Your task to perform on an android device: delete browsing data in the chrome app Image 0: 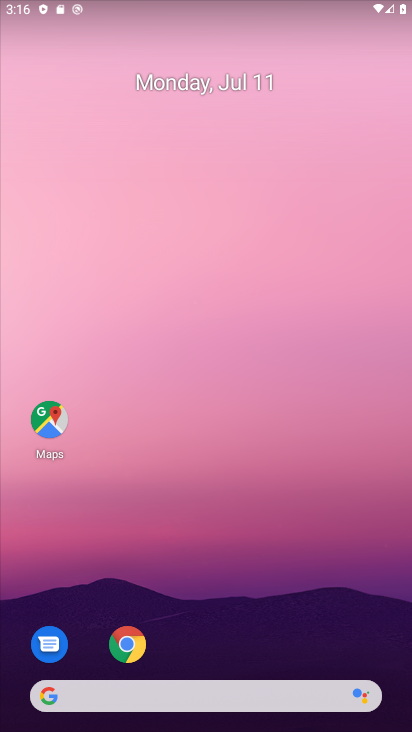
Step 0: drag from (237, 666) to (236, 354)
Your task to perform on an android device: delete browsing data in the chrome app Image 1: 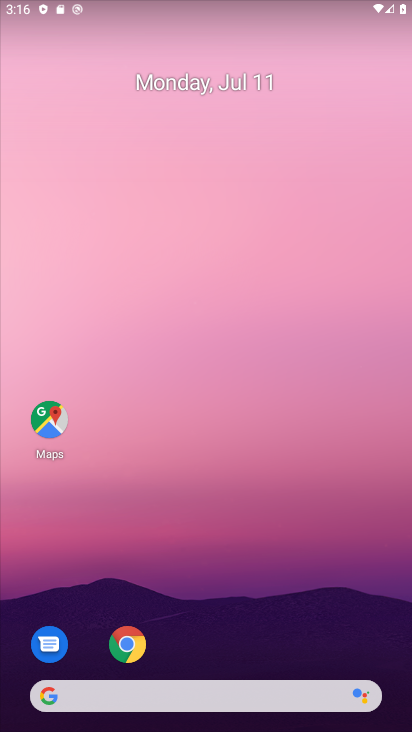
Step 1: drag from (216, 612) to (216, 141)
Your task to perform on an android device: delete browsing data in the chrome app Image 2: 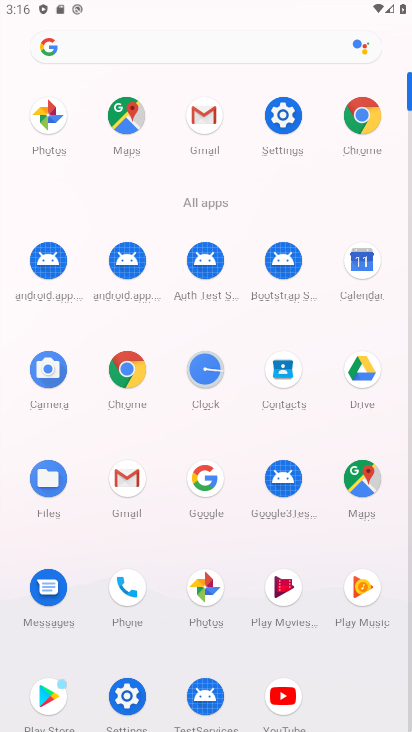
Step 2: click (347, 112)
Your task to perform on an android device: delete browsing data in the chrome app Image 3: 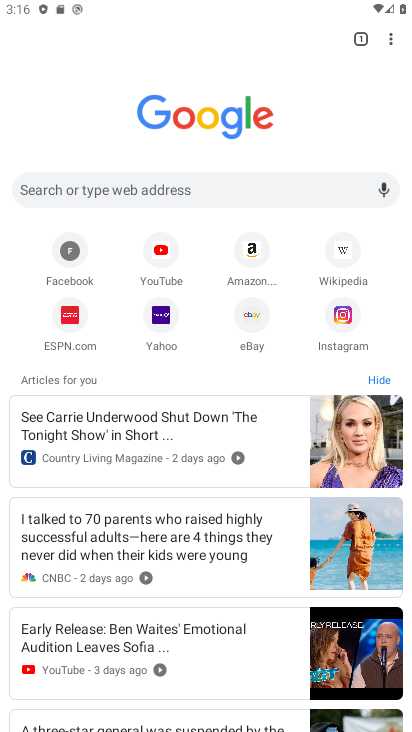
Step 3: click (388, 36)
Your task to perform on an android device: delete browsing data in the chrome app Image 4: 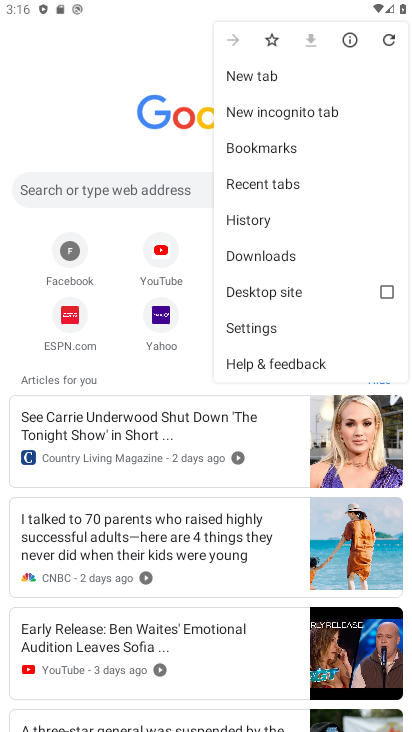
Step 4: click (238, 326)
Your task to perform on an android device: delete browsing data in the chrome app Image 5: 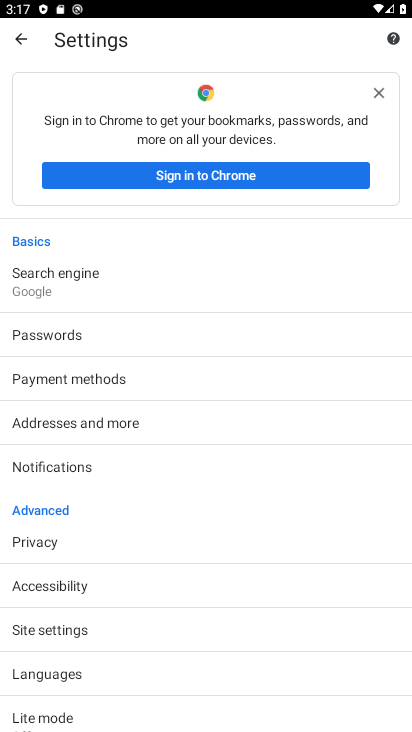
Step 5: drag from (194, 618) to (248, 194)
Your task to perform on an android device: delete browsing data in the chrome app Image 6: 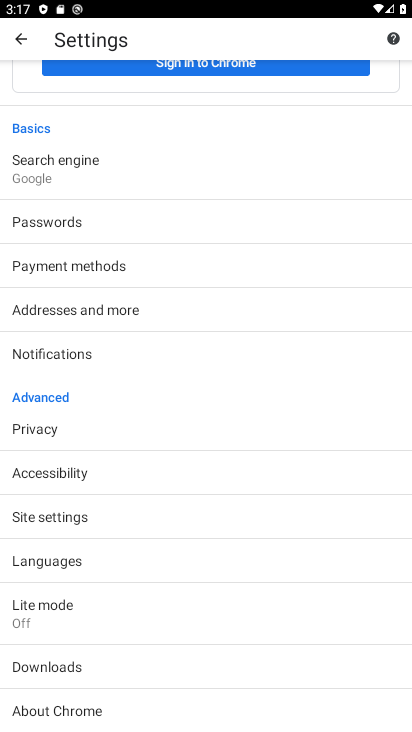
Step 6: click (71, 432)
Your task to perform on an android device: delete browsing data in the chrome app Image 7: 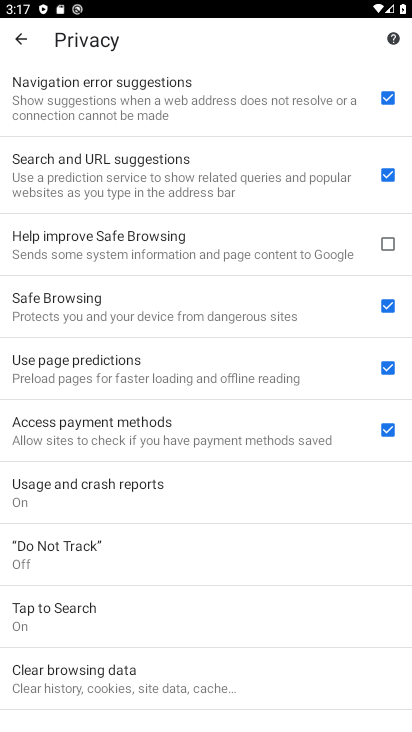
Step 7: drag from (209, 641) to (260, 317)
Your task to perform on an android device: delete browsing data in the chrome app Image 8: 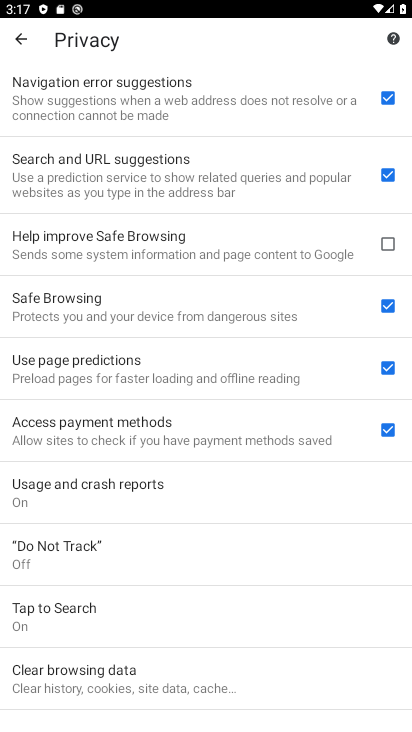
Step 8: click (157, 686)
Your task to perform on an android device: delete browsing data in the chrome app Image 9: 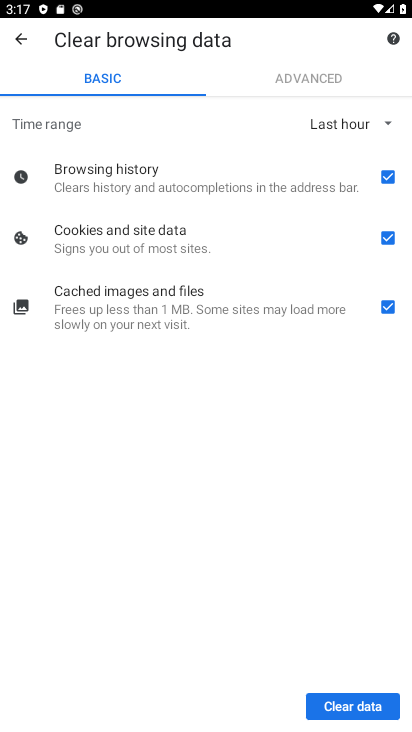
Step 9: click (337, 710)
Your task to perform on an android device: delete browsing data in the chrome app Image 10: 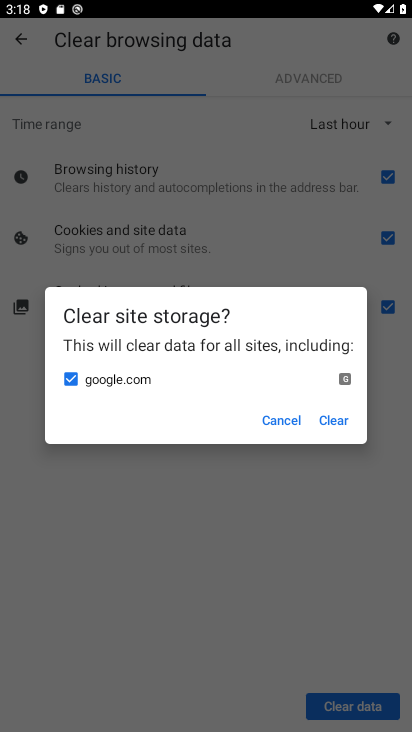
Step 10: click (314, 417)
Your task to perform on an android device: delete browsing data in the chrome app Image 11: 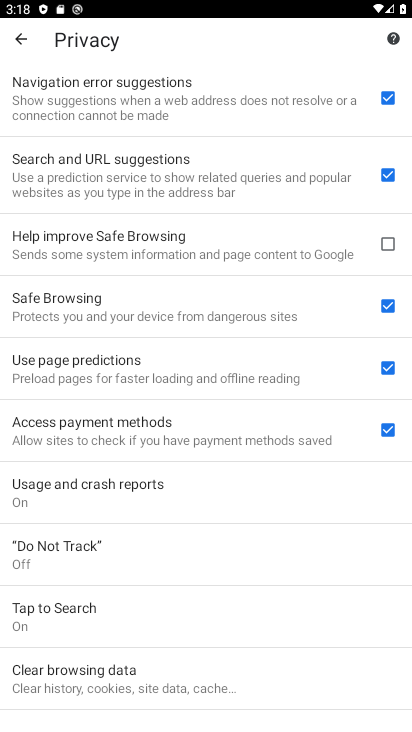
Step 11: task complete